Your task to perform on an android device: turn on bluetooth scan Image 0: 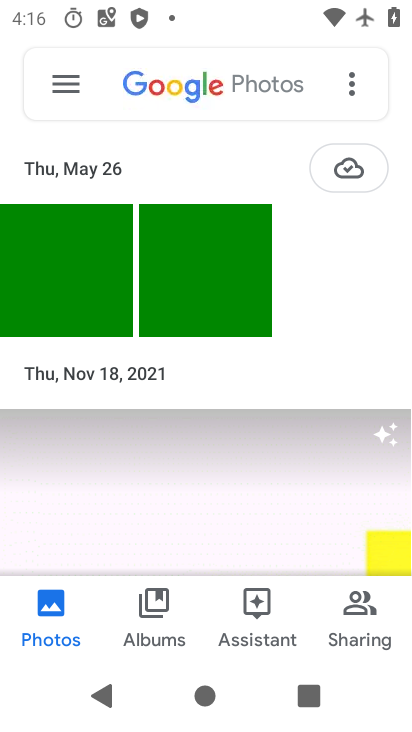
Step 0: press home button
Your task to perform on an android device: turn on bluetooth scan Image 1: 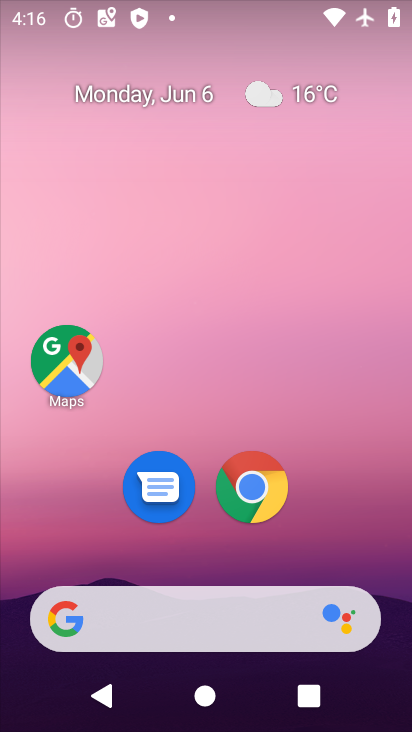
Step 1: drag from (315, 454) to (334, 81)
Your task to perform on an android device: turn on bluetooth scan Image 2: 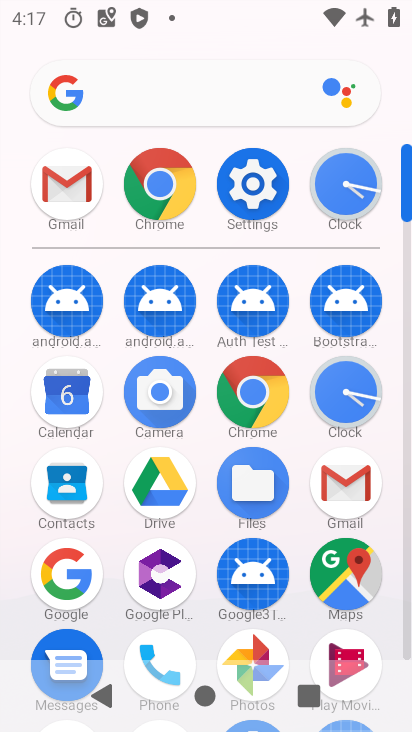
Step 2: click (241, 186)
Your task to perform on an android device: turn on bluetooth scan Image 3: 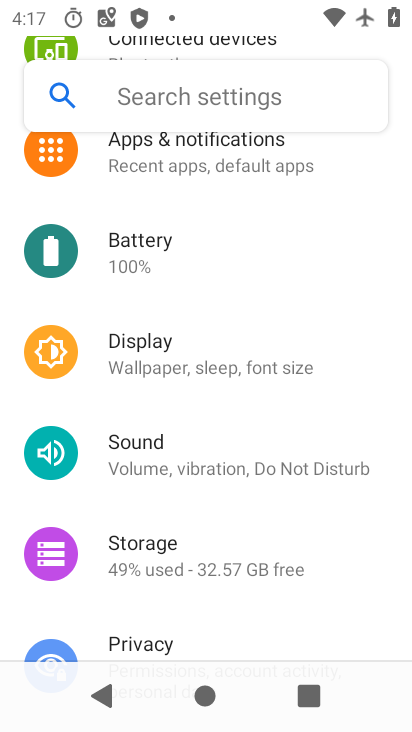
Step 3: drag from (208, 196) to (215, 667)
Your task to perform on an android device: turn on bluetooth scan Image 4: 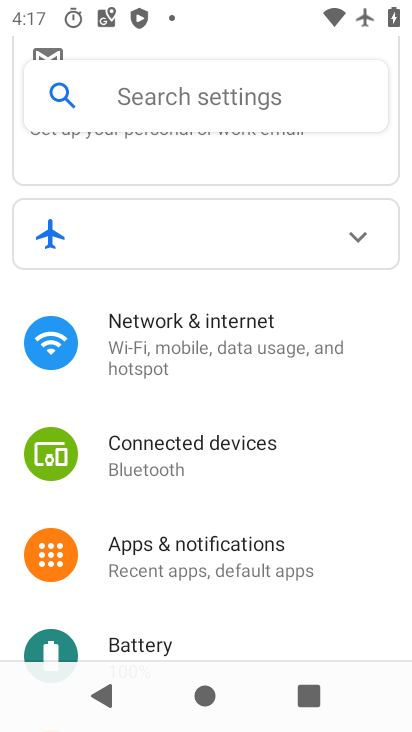
Step 4: click (188, 344)
Your task to perform on an android device: turn on bluetooth scan Image 5: 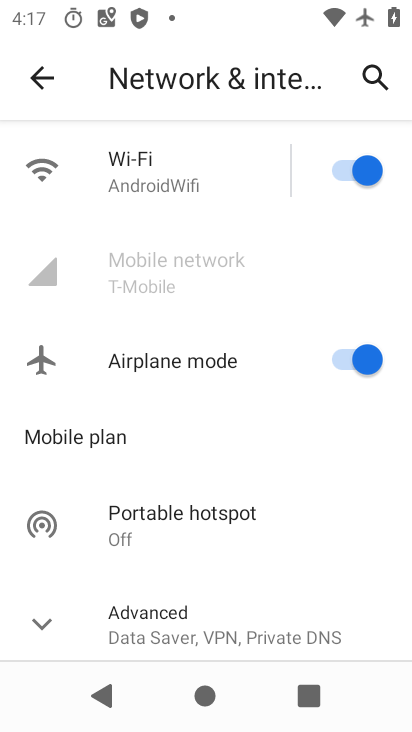
Step 5: click (50, 72)
Your task to perform on an android device: turn on bluetooth scan Image 6: 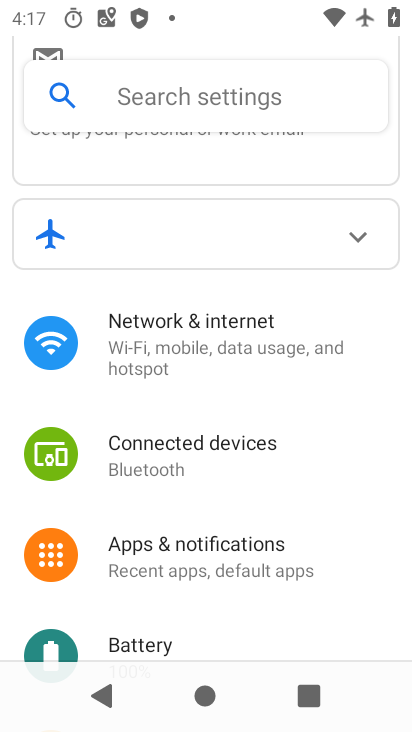
Step 6: click (162, 455)
Your task to perform on an android device: turn on bluetooth scan Image 7: 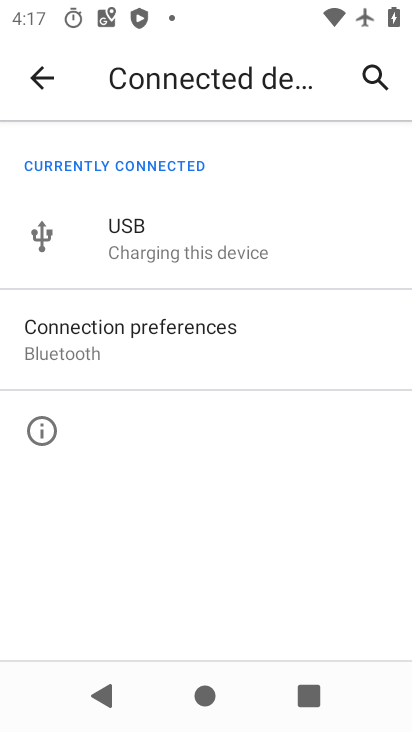
Step 7: click (190, 252)
Your task to perform on an android device: turn on bluetooth scan Image 8: 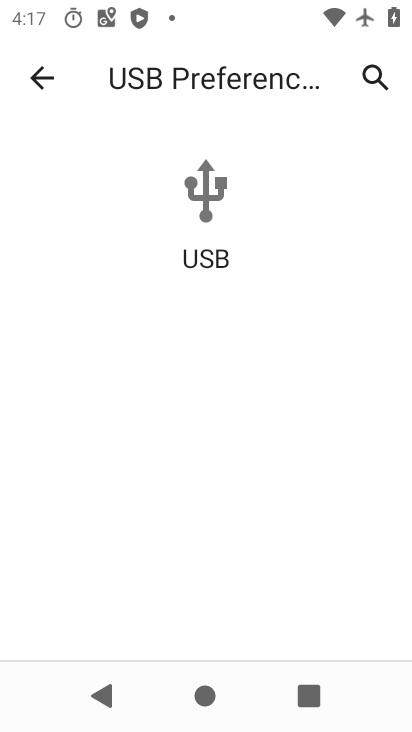
Step 8: click (34, 64)
Your task to perform on an android device: turn on bluetooth scan Image 9: 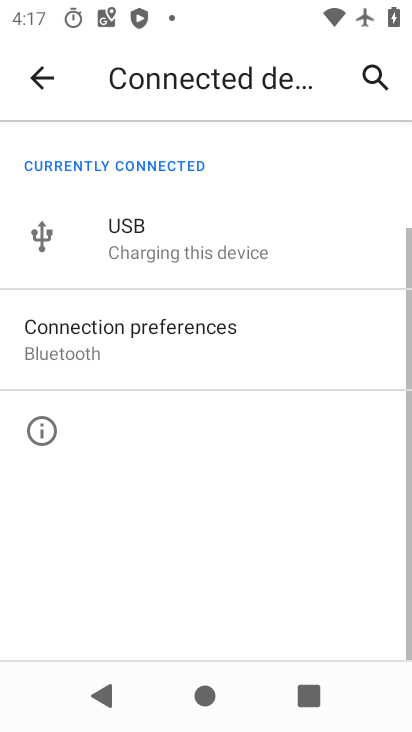
Step 9: click (123, 361)
Your task to perform on an android device: turn on bluetooth scan Image 10: 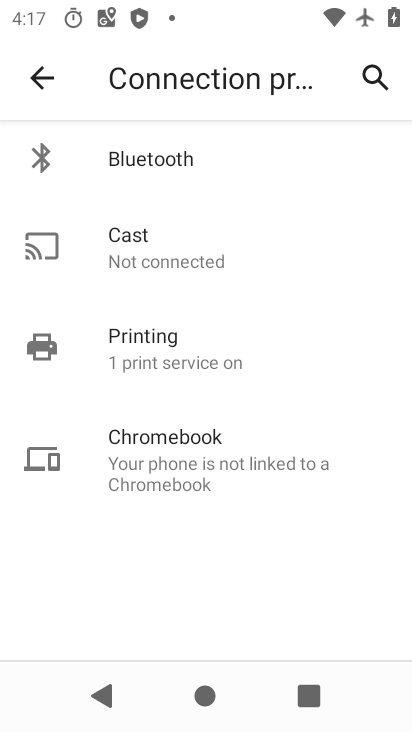
Step 10: click (165, 172)
Your task to perform on an android device: turn on bluetooth scan Image 11: 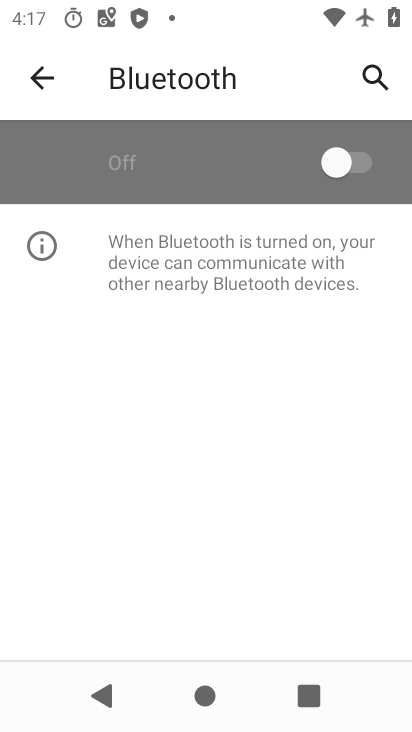
Step 11: click (337, 173)
Your task to perform on an android device: turn on bluetooth scan Image 12: 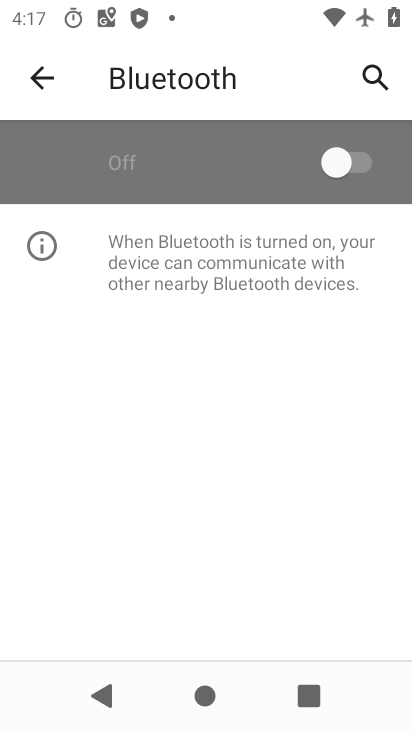
Step 12: click (353, 166)
Your task to perform on an android device: turn on bluetooth scan Image 13: 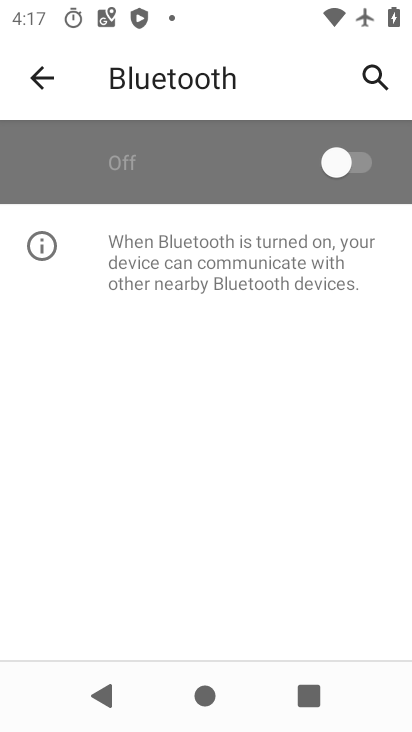
Step 13: click (46, 63)
Your task to perform on an android device: turn on bluetooth scan Image 14: 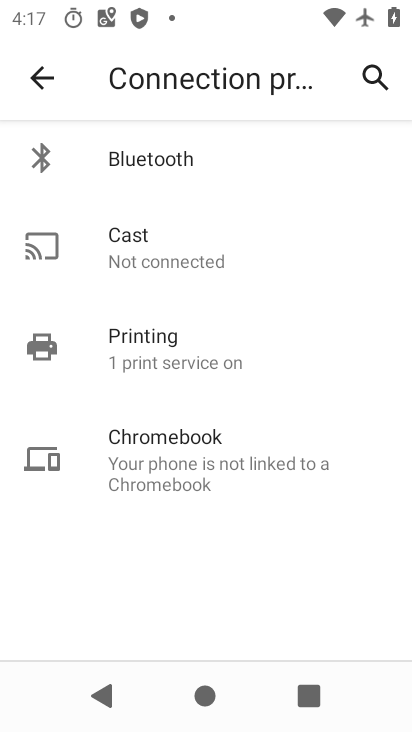
Step 14: click (30, 83)
Your task to perform on an android device: turn on bluetooth scan Image 15: 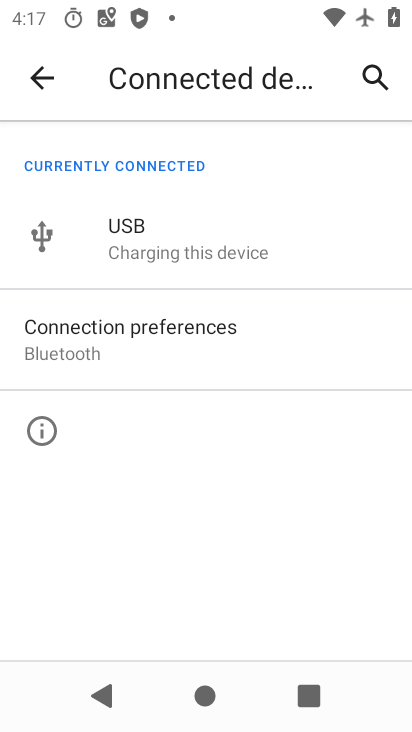
Step 15: click (31, 83)
Your task to perform on an android device: turn on bluetooth scan Image 16: 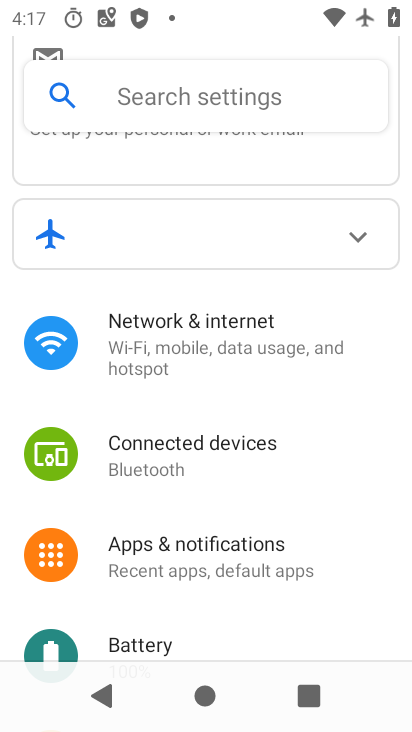
Step 16: drag from (194, 517) to (258, 5)
Your task to perform on an android device: turn on bluetooth scan Image 17: 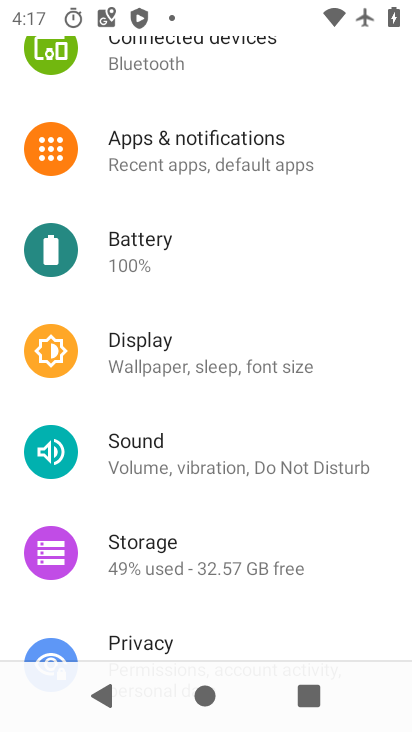
Step 17: click (192, 341)
Your task to perform on an android device: turn on bluetooth scan Image 18: 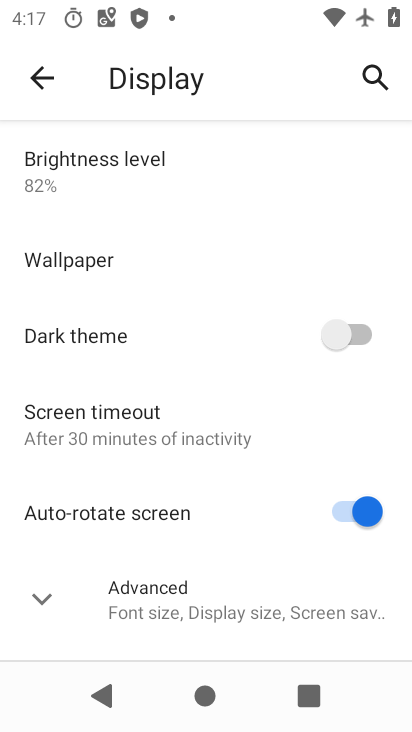
Step 18: click (30, 83)
Your task to perform on an android device: turn on bluetooth scan Image 19: 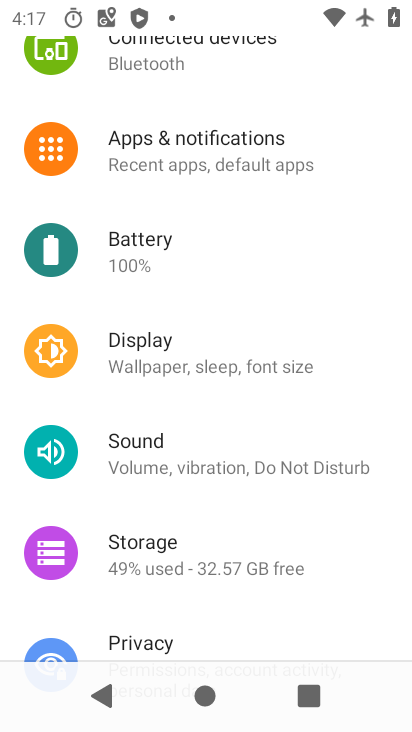
Step 19: drag from (181, 578) to (249, 61)
Your task to perform on an android device: turn on bluetooth scan Image 20: 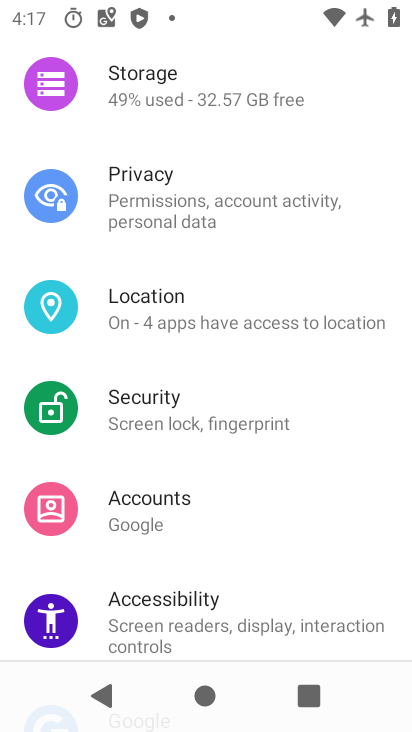
Step 20: drag from (190, 528) to (196, 659)
Your task to perform on an android device: turn on bluetooth scan Image 21: 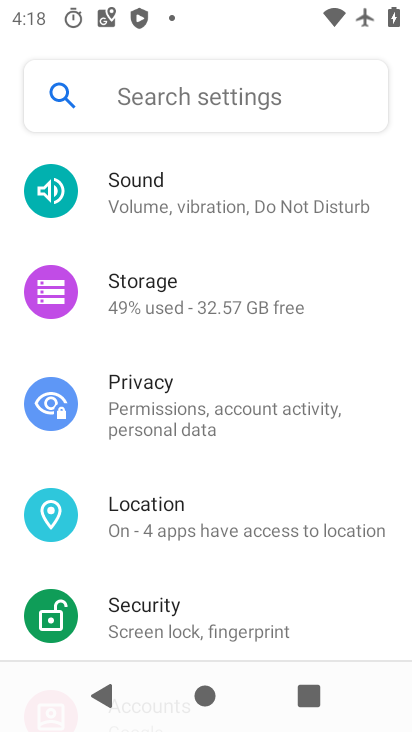
Step 21: click (177, 514)
Your task to perform on an android device: turn on bluetooth scan Image 22: 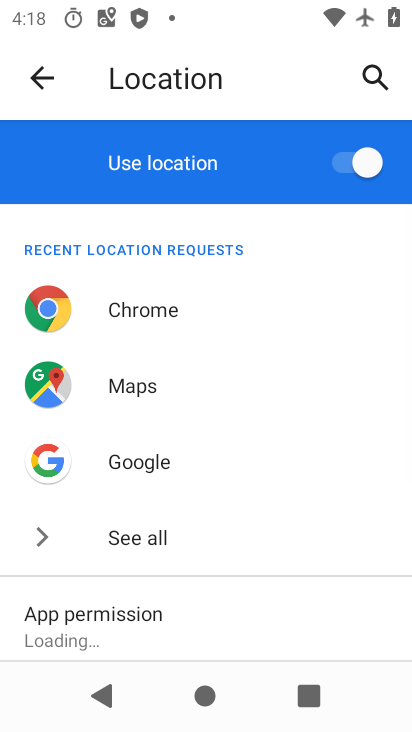
Step 22: drag from (158, 604) to (263, 111)
Your task to perform on an android device: turn on bluetooth scan Image 23: 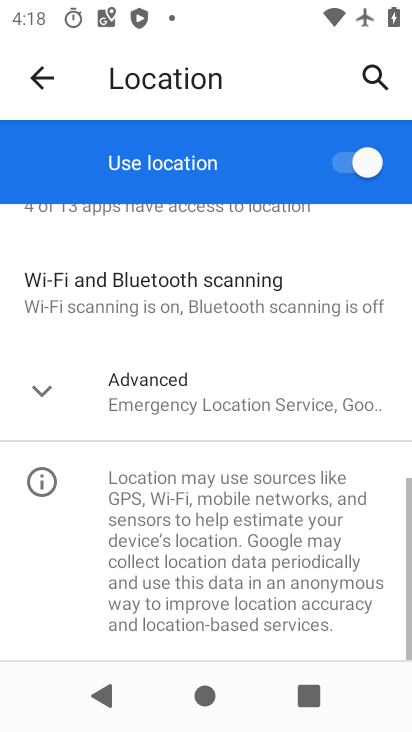
Step 23: click (213, 293)
Your task to perform on an android device: turn on bluetooth scan Image 24: 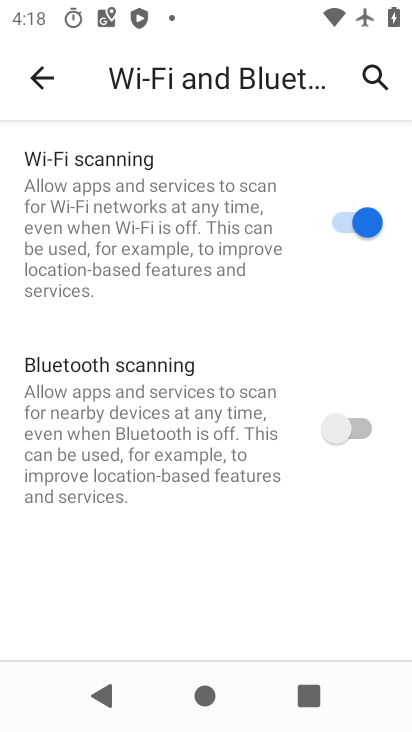
Step 24: click (351, 429)
Your task to perform on an android device: turn on bluetooth scan Image 25: 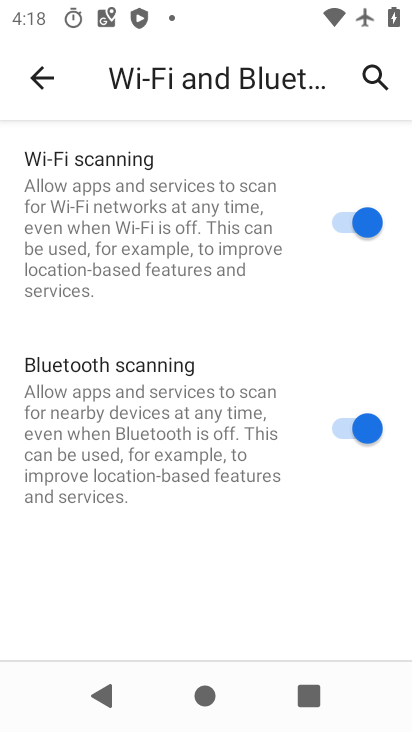
Step 25: task complete